Your task to perform on an android device: turn on showing notifications on the lock screen Image 0: 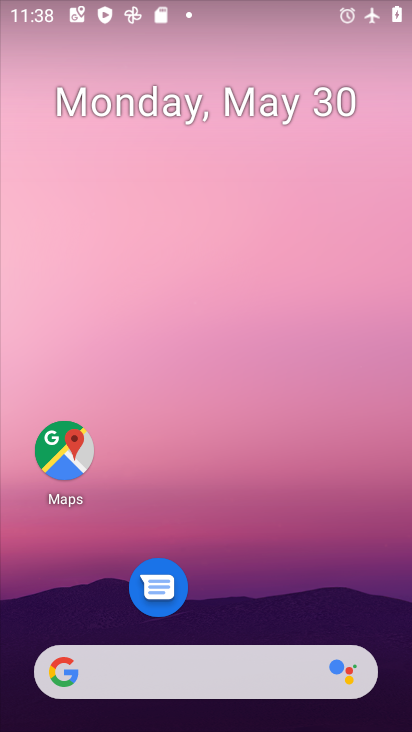
Step 0: drag from (239, 634) to (164, 14)
Your task to perform on an android device: turn on showing notifications on the lock screen Image 1: 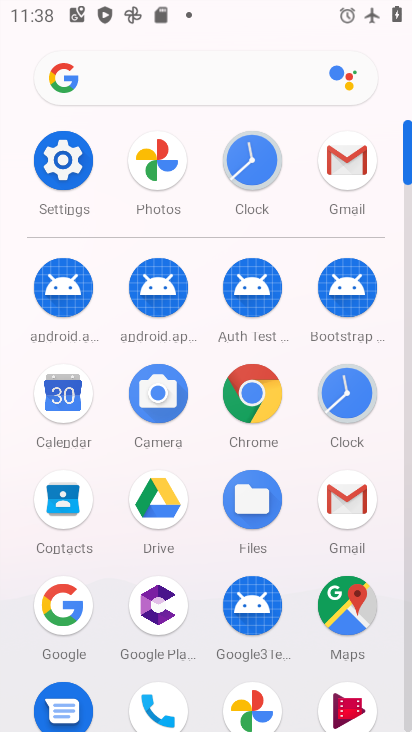
Step 1: click (72, 164)
Your task to perform on an android device: turn on showing notifications on the lock screen Image 2: 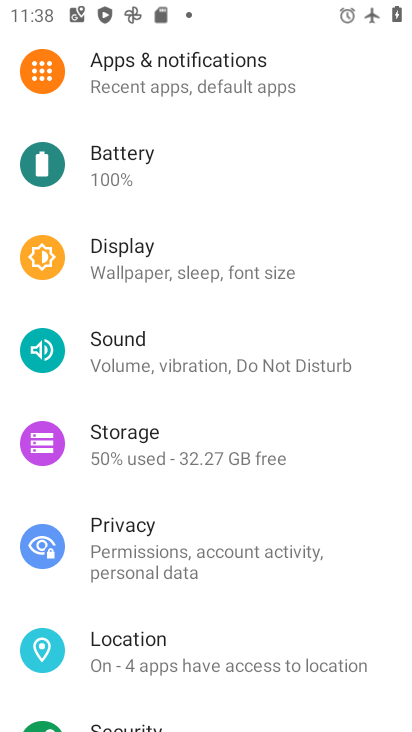
Step 2: click (196, 88)
Your task to perform on an android device: turn on showing notifications on the lock screen Image 3: 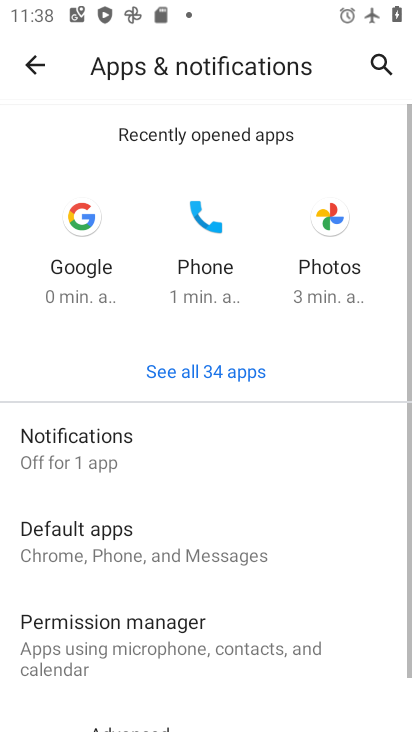
Step 3: click (81, 415)
Your task to perform on an android device: turn on showing notifications on the lock screen Image 4: 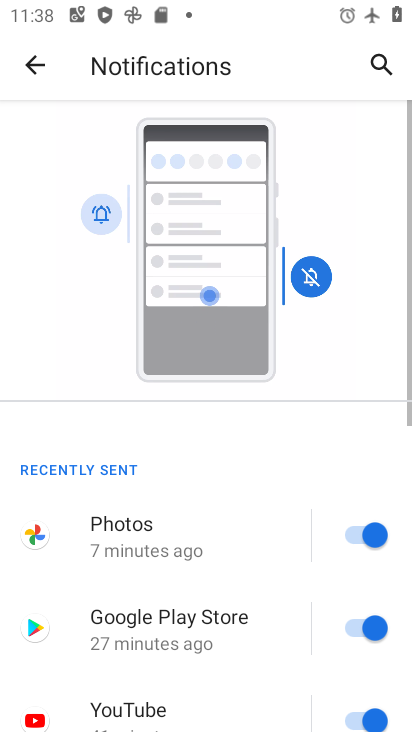
Step 4: drag from (218, 601) to (244, 70)
Your task to perform on an android device: turn on showing notifications on the lock screen Image 5: 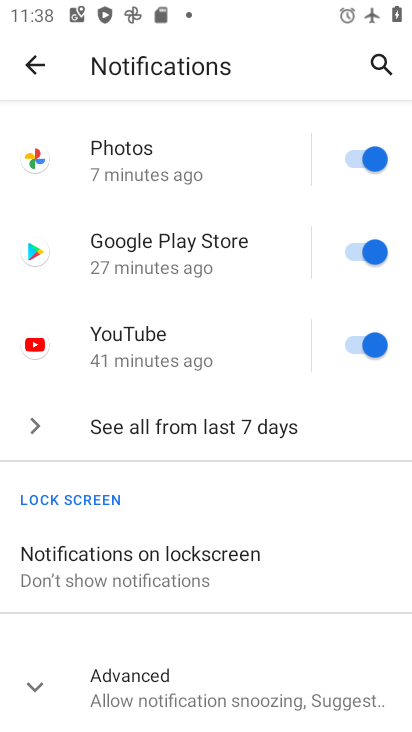
Step 5: click (182, 576)
Your task to perform on an android device: turn on showing notifications on the lock screen Image 6: 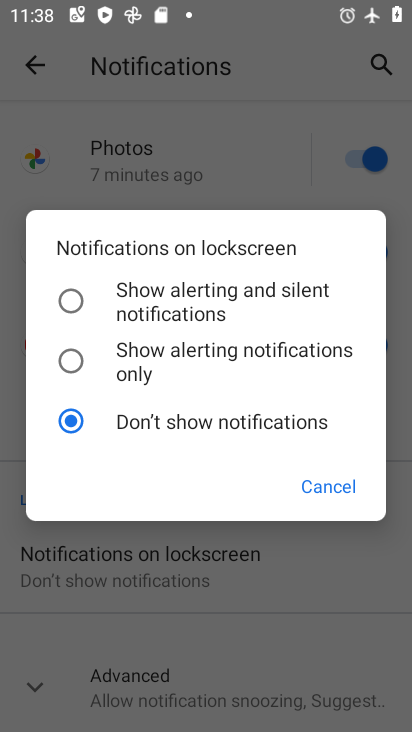
Step 6: click (139, 299)
Your task to perform on an android device: turn on showing notifications on the lock screen Image 7: 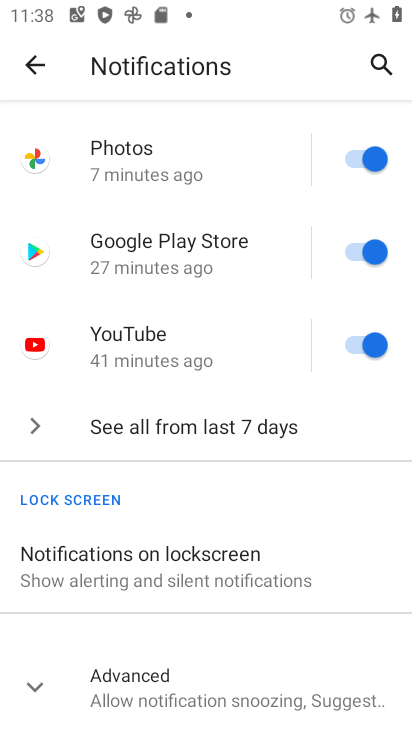
Step 7: task complete